Your task to perform on an android device: change the clock display to show seconds Image 0: 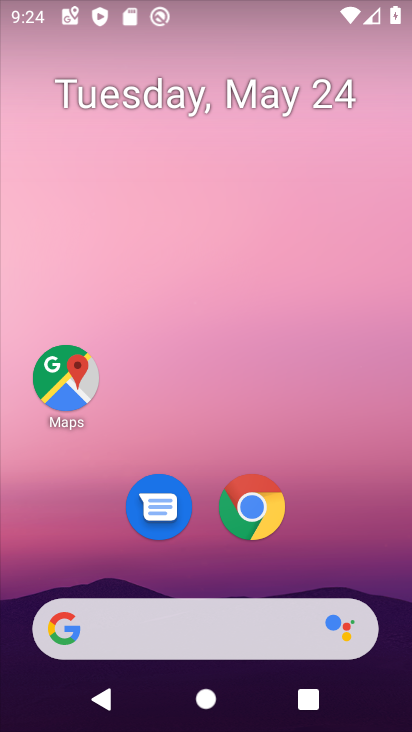
Step 0: drag from (118, 526) to (208, 143)
Your task to perform on an android device: change the clock display to show seconds Image 1: 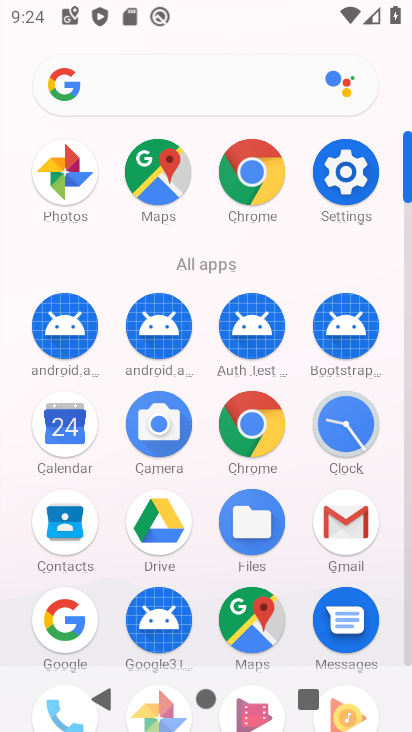
Step 1: click (344, 422)
Your task to perform on an android device: change the clock display to show seconds Image 2: 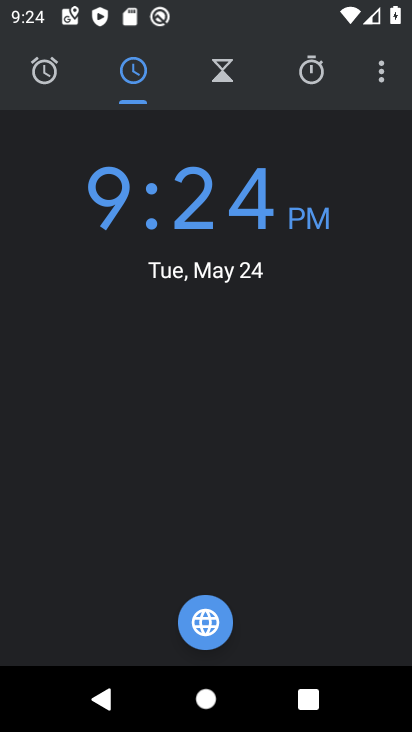
Step 2: click (398, 64)
Your task to perform on an android device: change the clock display to show seconds Image 3: 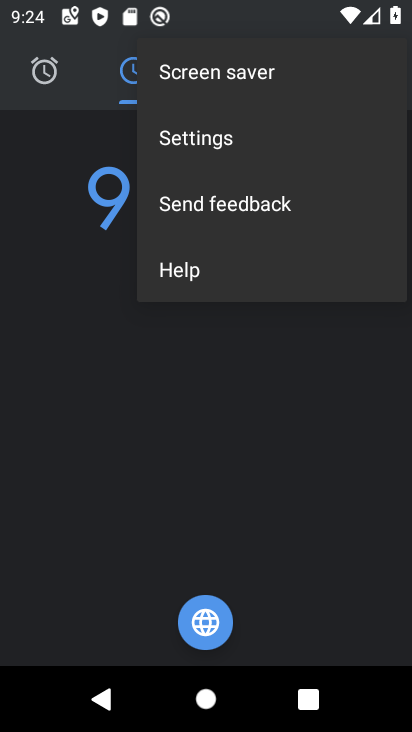
Step 3: click (309, 157)
Your task to perform on an android device: change the clock display to show seconds Image 4: 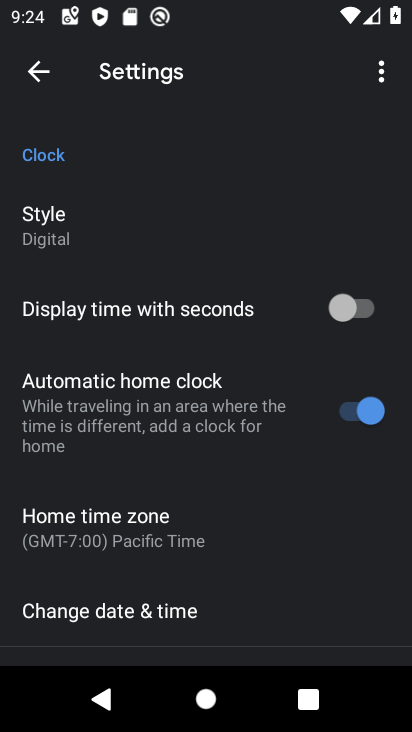
Step 4: click (383, 304)
Your task to perform on an android device: change the clock display to show seconds Image 5: 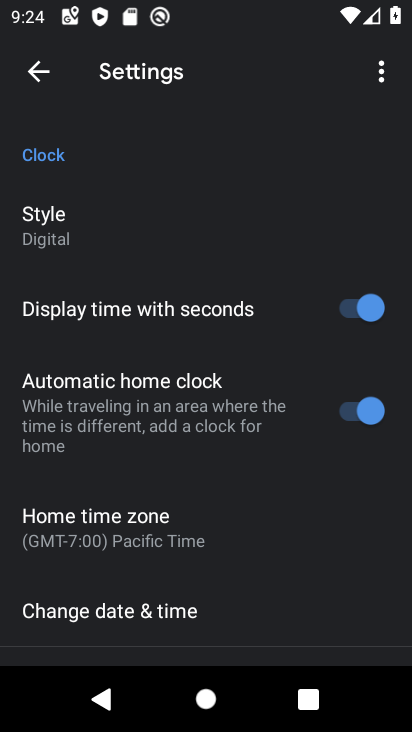
Step 5: task complete